Your task to perform on an android device: turn on notifications settings in the gmail app Image 0: 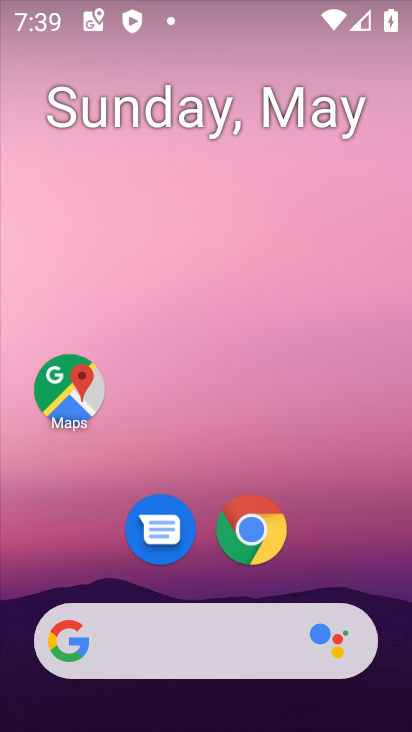
Step 0: drag from (380, 596) to (314, 27)
Your task to perform on an android device: turn on notifications settings in the gmail app Image 1: 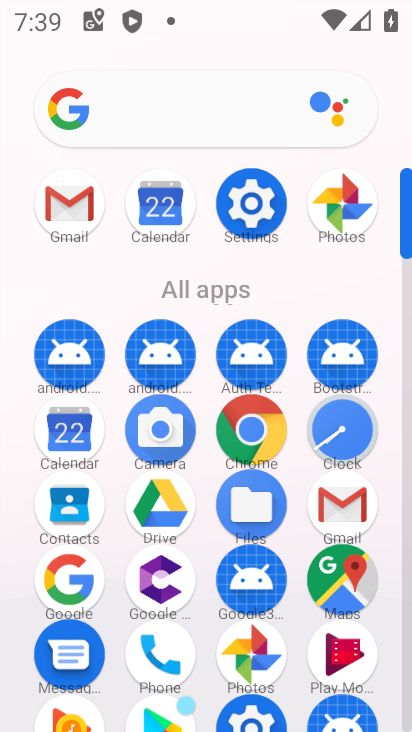
Step 1: click (68, 220)
Your task to perform on an android device: turn on notifications settings in the gmail app Image 2: 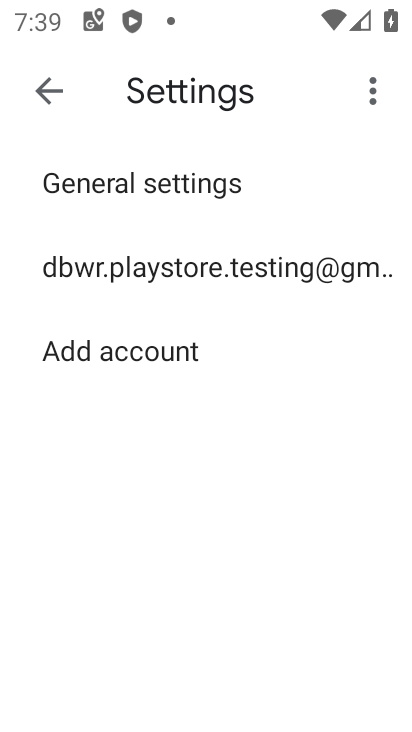
Step 2: click (121, 193)
Your task to perform on an android device: turn on notifications settings in the gmail app Image 3: 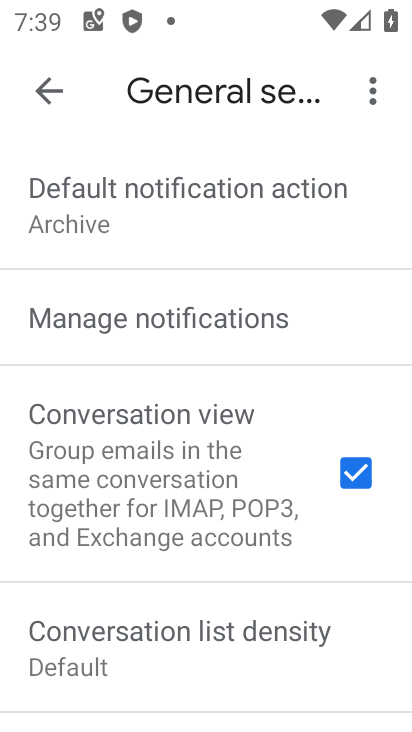
Step 3: click (125, 334)
Your task to perform on an android device: turn on notifications settings in the gmail app Image 4: 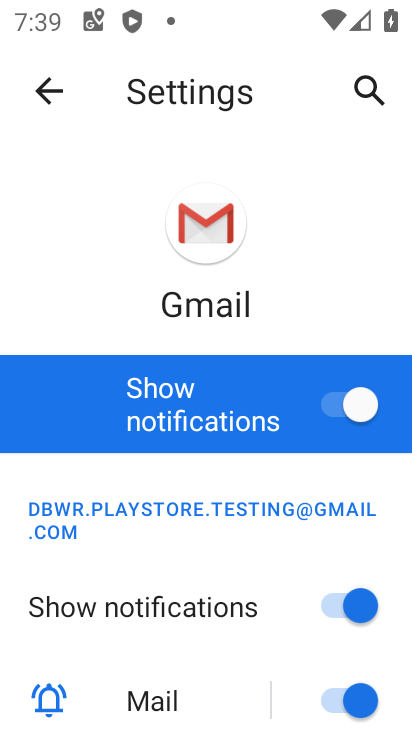
Step 4: task complete